Your task to perform on an android device: check the backup settings in the google photos Image 0: 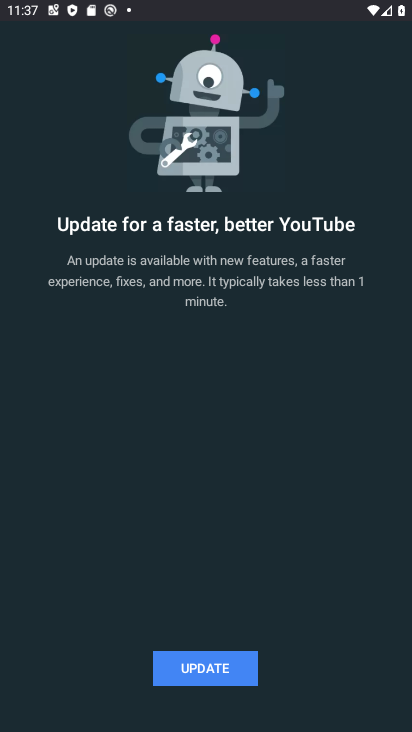
Step 0: press home button
Your task to perform on an android device: check the backup settings in the google photos Image 1: 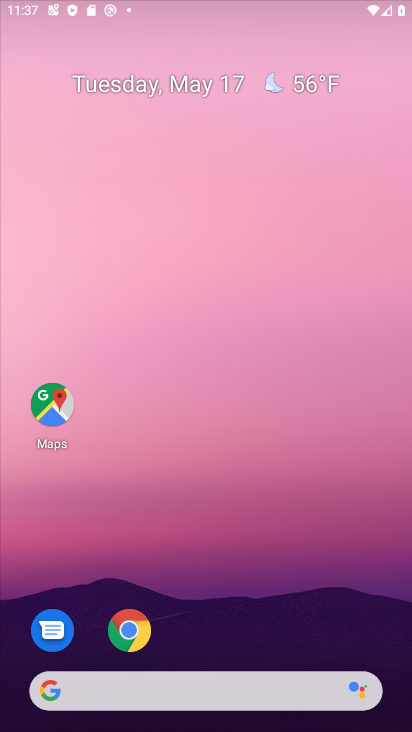
Step 1: drag from (348, 576) to (297, 198)
Your task to perform on an android device: check the backup settings in the google photos Image 2: 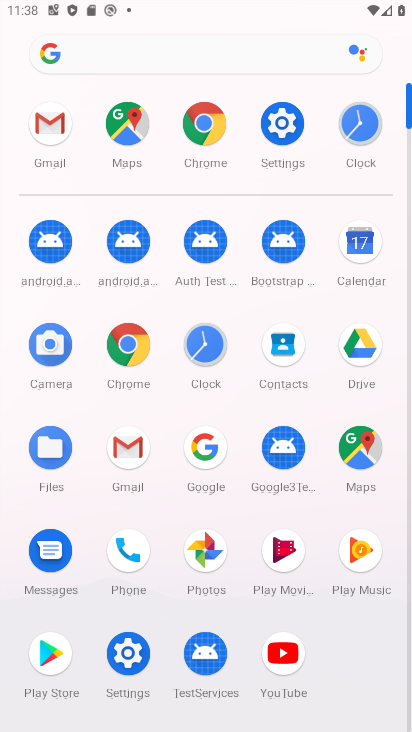
Step 2: click (209, 549)
Your task to perform on an android device: check the backup settings in the google photos Image 3: 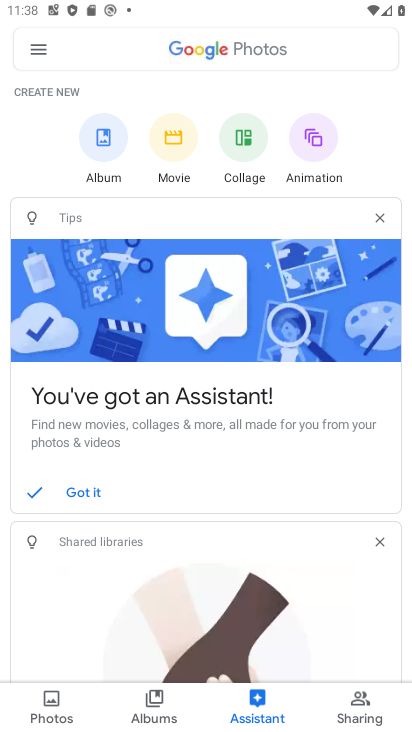
Step 3: click (41, 48)
Your task to perform on an android device: check the backup settings in the google photos Image 4: 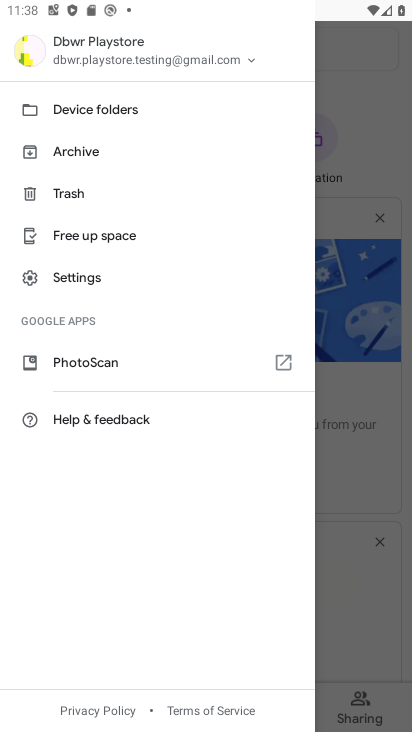
Step 4: click (116, 274)
Your task to perform on an android device: check the backup settings in the google photos Image 5: 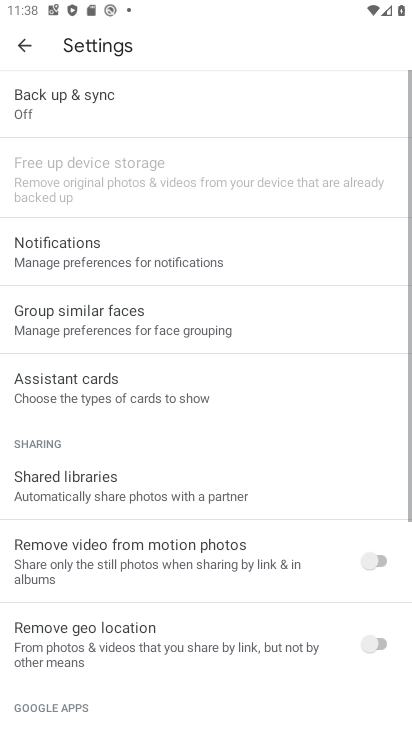
Step 5: click (139, 102)
Your task to perform on an android device: check the backup settings in the google photos Image 6: 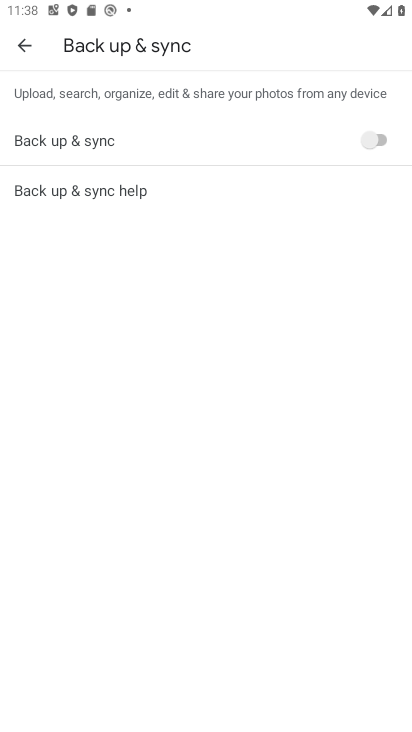
Step 6: task complete